Your task to perform on an android device: Go to CNN.com Image 0: 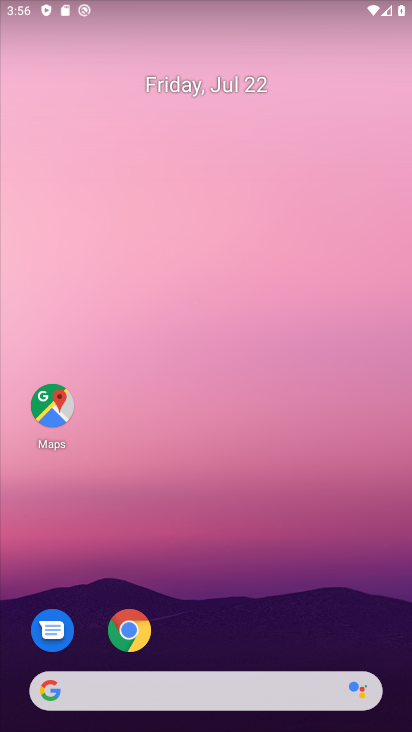
Step 0: click (124, 633)
Your task to perform on an android device: Go to CNN.com Image 1: 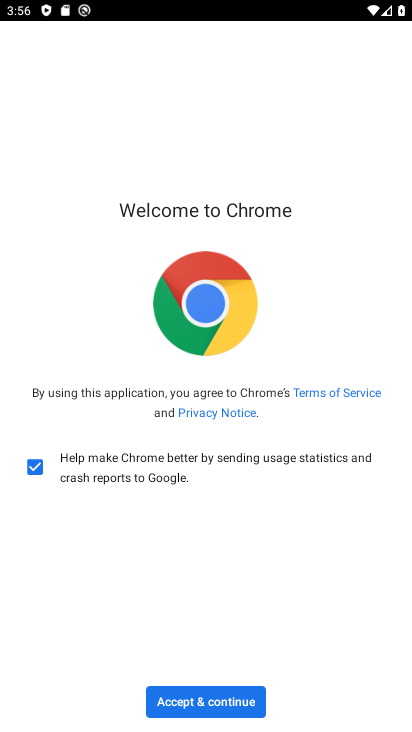
Step 1: click (210, 700)
Your task to perform on an android device: Go to CNN.com Image 2: 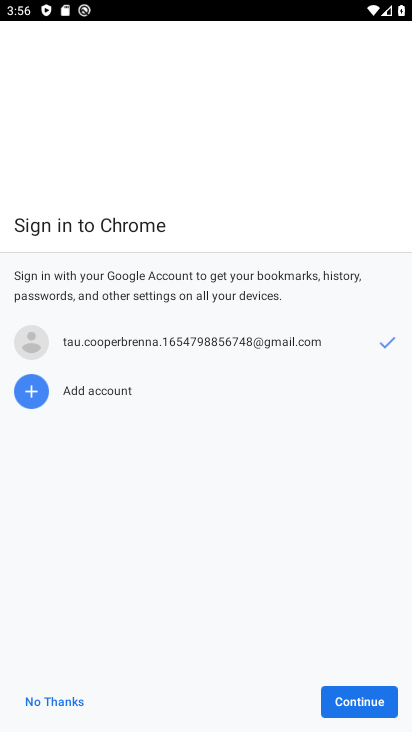
Step 2: click (379, 704)
Your task to perform on an android device: Go to CNN.com Image 3: 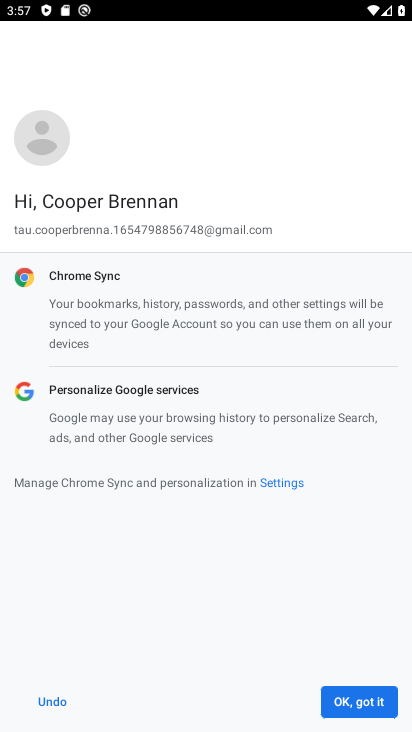
Step 3: press home button
Your task to perform on an android device: Go to CNN.com Image 4: 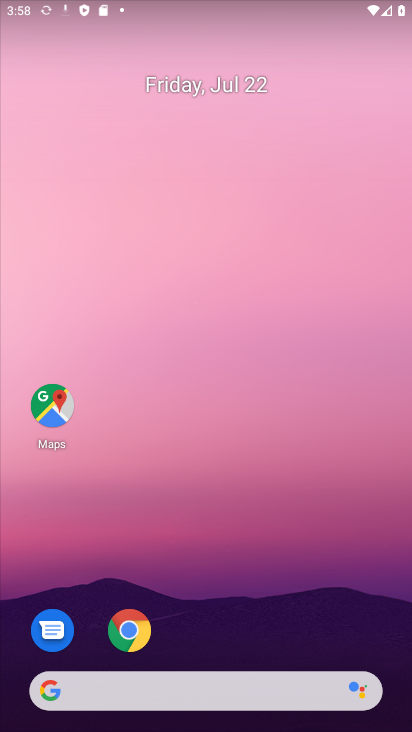
Step 4: click (124, 628)
Your task to perform on an android device: Go to CNN.com Image 5: 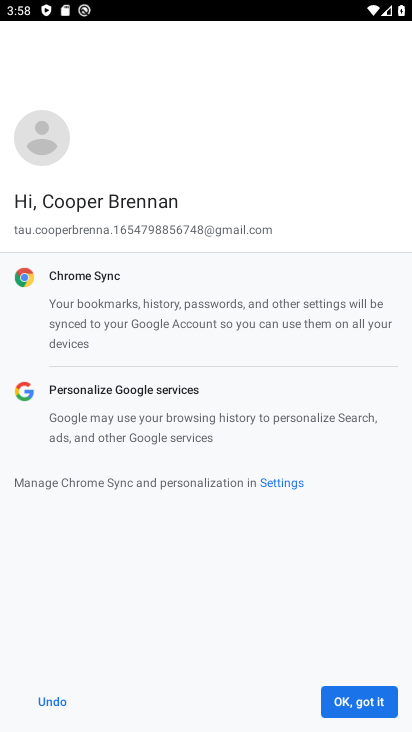
Step 5: click (353, 700)
Your task to perform on an android device: Go to CNN.com Image 6: 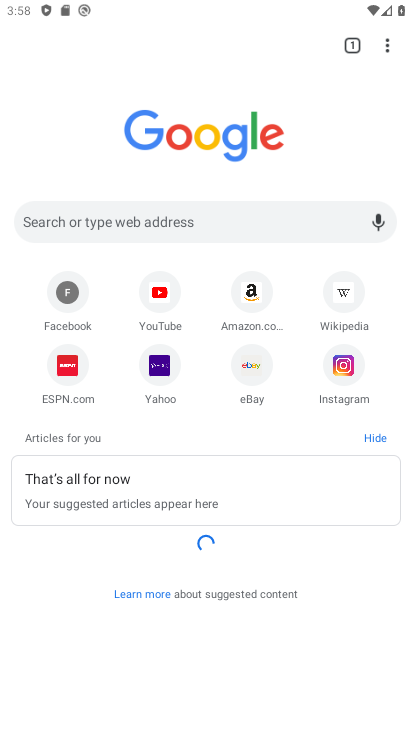
Step 6: click (101, 220)
Your task to perform on an android device: Go to CNN.com Image 7: 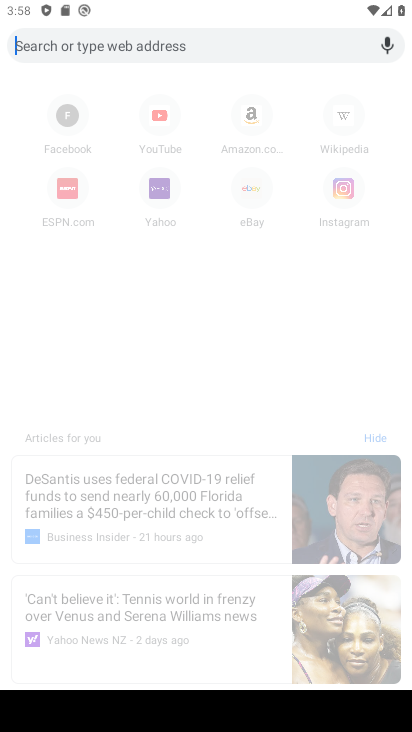
Step 7: type "www.cnn.com"
Your task to perform on an android device: Go to CNN.com Image 8: 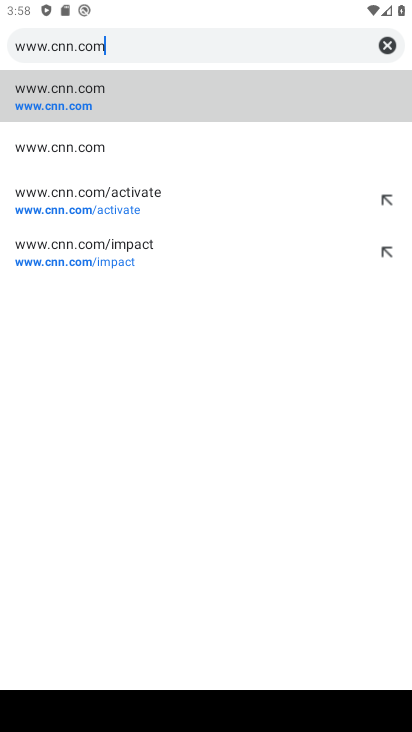
Step 8: click (66, 102)
Your task to perform on an android device: Go to CNN.com Image 9: 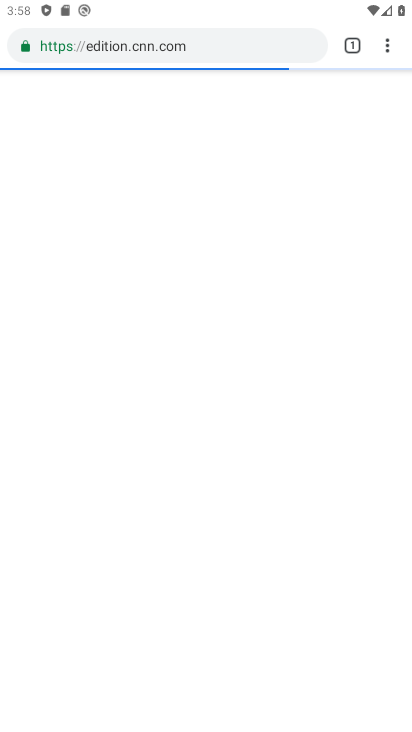
Step 9: task complete